Your task to perform on an android device: add a label to a message in the gmail app Image 0: 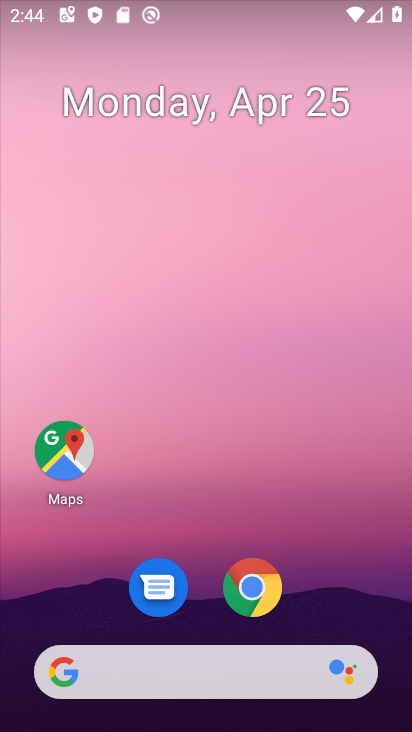
Step 0: drag from (203, 616) to (244, 231)
Your task to perform on an android device: add a label to a message in the gmail app Image 1: 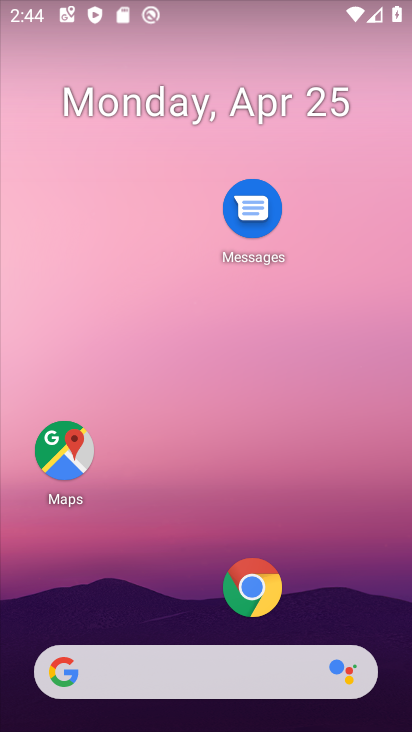
Step 1: drag from (172, 535) to (195, 196)
Your task to perform on an android device: add a label to a message in the gmail app Image 2: 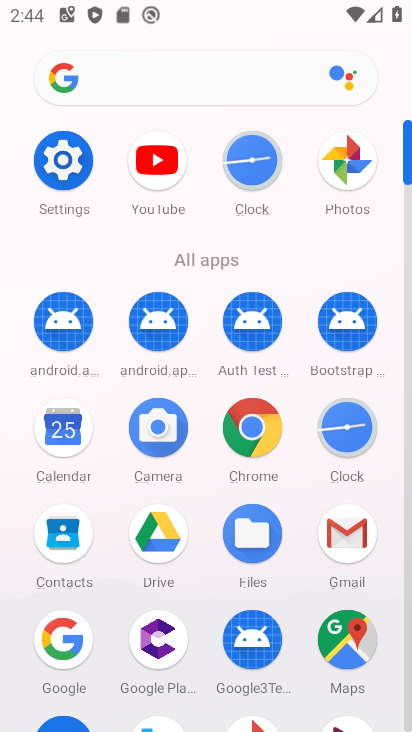
Step 2: click (333, 537)
Your task to perform on an android device: add a label to a message in the gmail app Image 3: 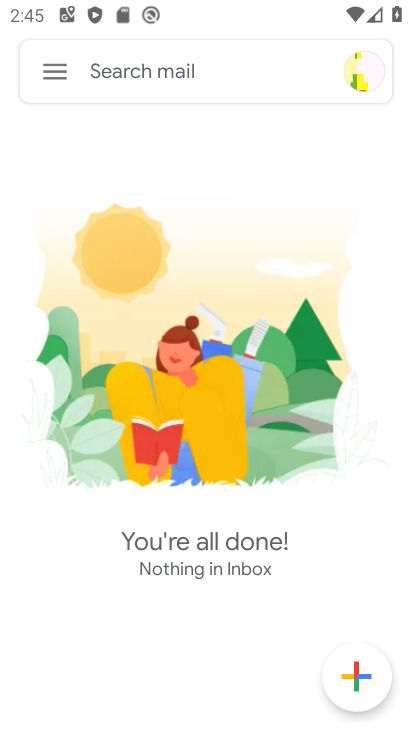
Step 3: click (62, 67)
Your task to perform on an android device: add a label to a message in the gmail app Image 4: 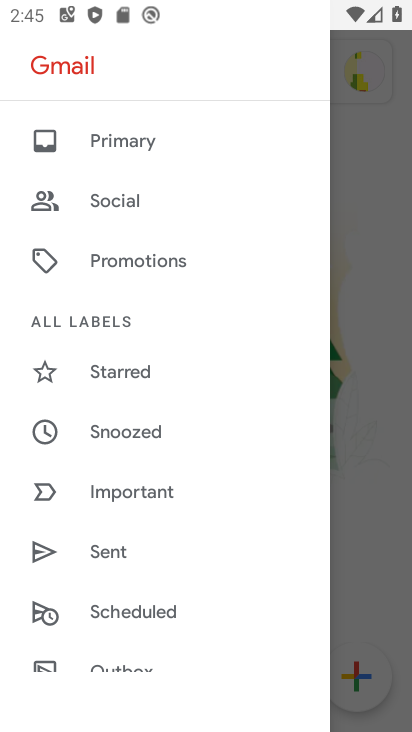
Step 4: drag from (116, 562) to (154, 189)
Your task to perform on an android device: add a label to a message in the gmail app Image 5: 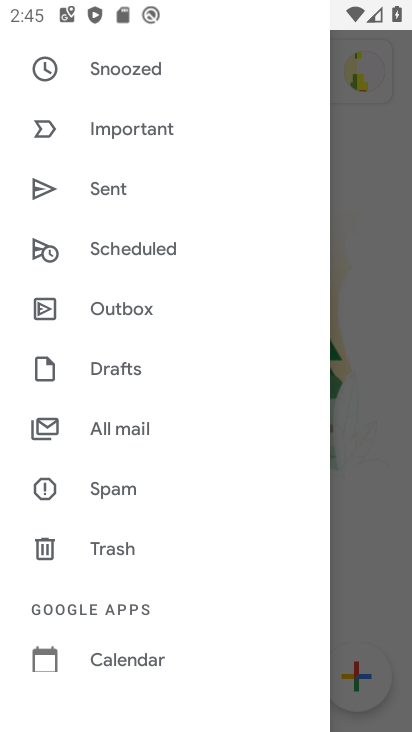
Step 5: click (159, 423)
Your task to perform on an android device: add a label to a message in the gmail app Image 6: 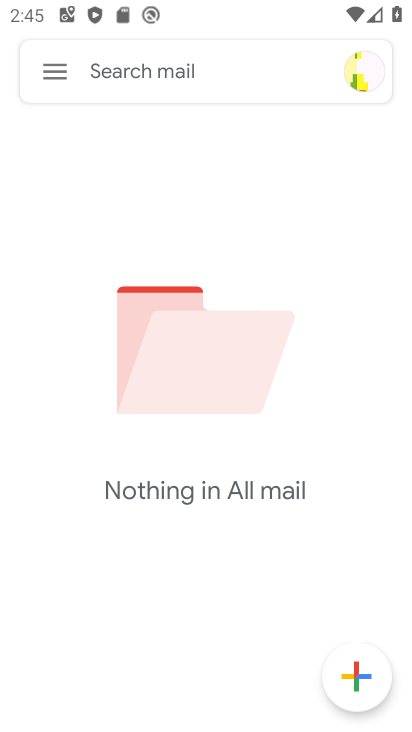
Step 6: task complete